Your task to perform on an android device: add a label to a message in the gmail app Image 0: 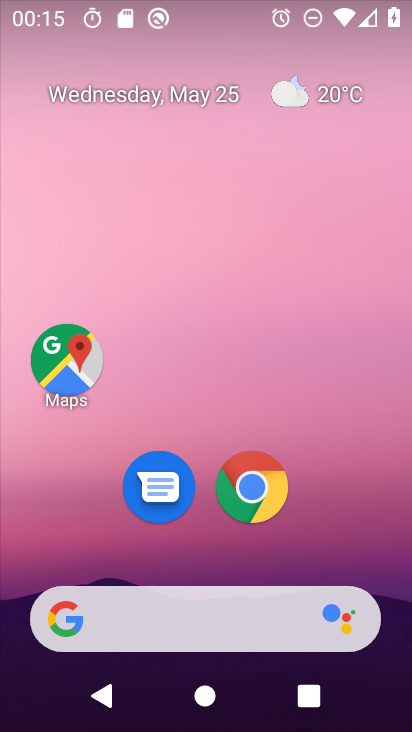
Step 0: drag from (357, 576) to (364, 6)
Your task to perform on an android device: add a label to a message in the gmail app Image 1: 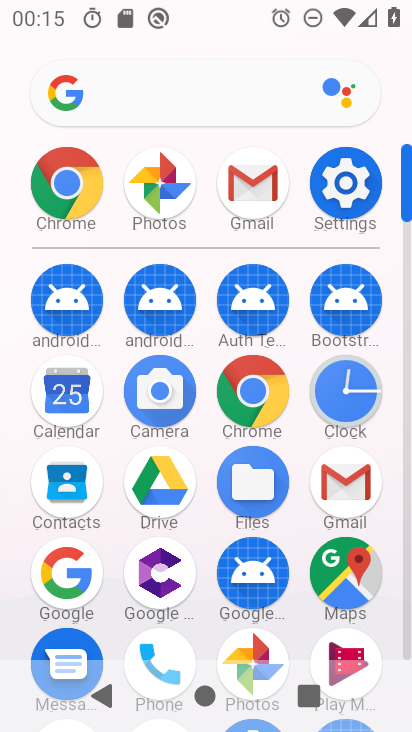
Step 1: click (256, 189)
Your task to perform on an android device: add a label to a message in the gmail app Image 2: 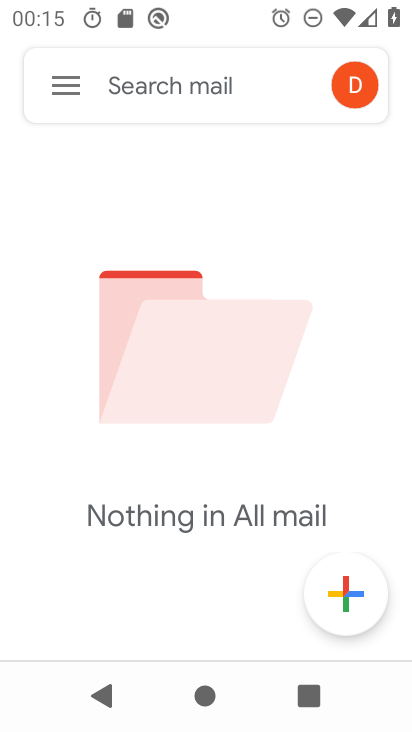
Step 2: task complete